Your task to perform on an android device: Search for Italian restaurants on Maps Image 0: 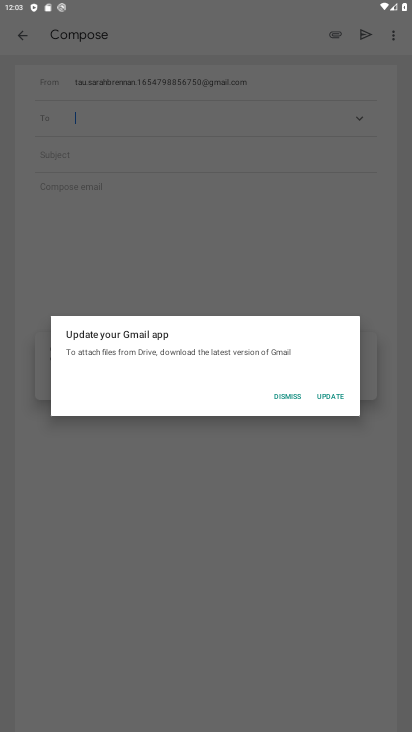
Step 0: press home button
Your task to perform on an android device: Search for Italian restaurants on Maps Image 1: 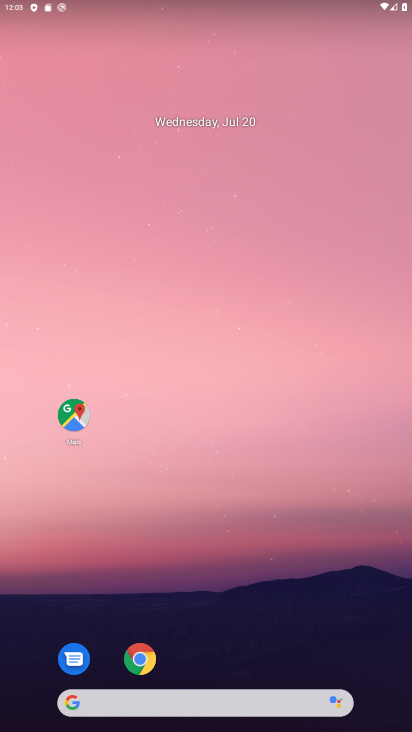
Step 1: click (82, 415)
Your task to perform on an android device: Search for Italian restaurants on Maps Image 2: 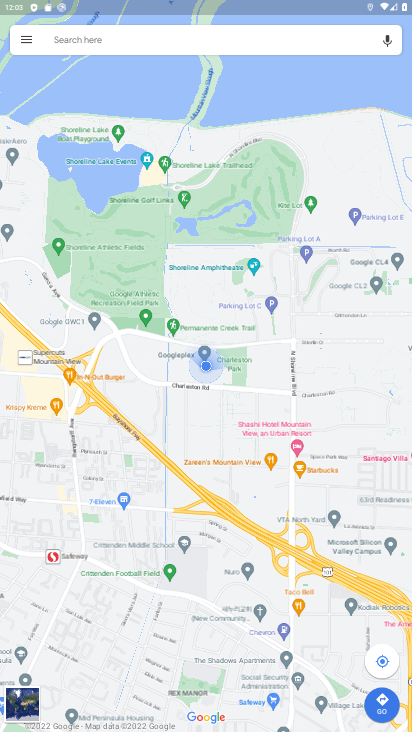
Step 2: click (168, 40)
Your task to perform on an android device: Search for Italian restaurants on Maps Image 3: 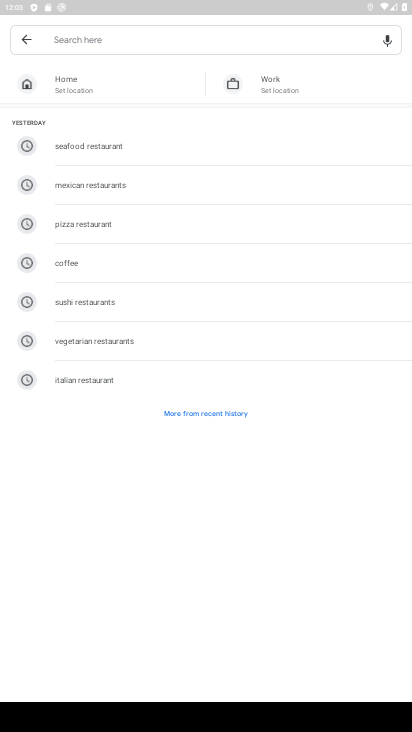
Step 3: type "Italian restaurants"
Your task to perform on an android device: Search for Italian restaurants on Maps Image 4: 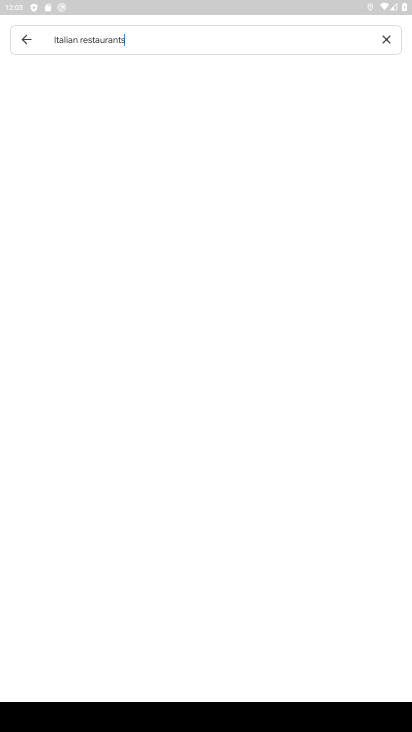
Step 4: press enter
Your task to perform on an android device: Search for Italian restaurants on Maps Image 5: 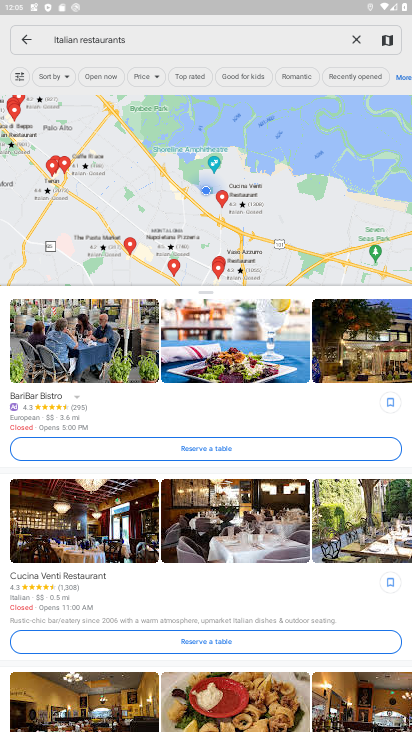
Step 5: task complete